Your task to perform on an android device: Show me recent news Image 0: 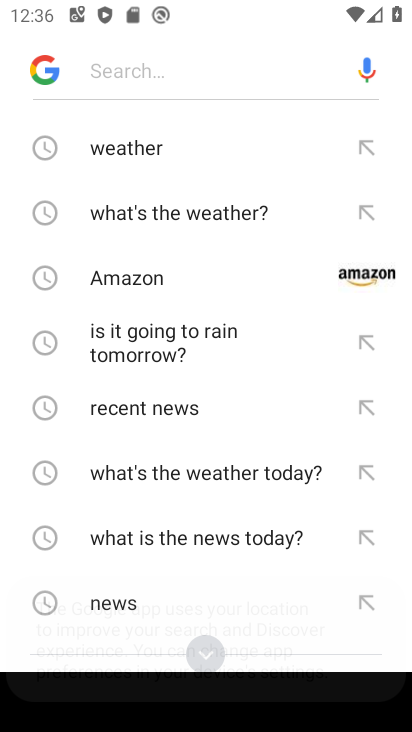
Step 0: press home button
Your task to perform on an android device: Show me recent news Image 1: 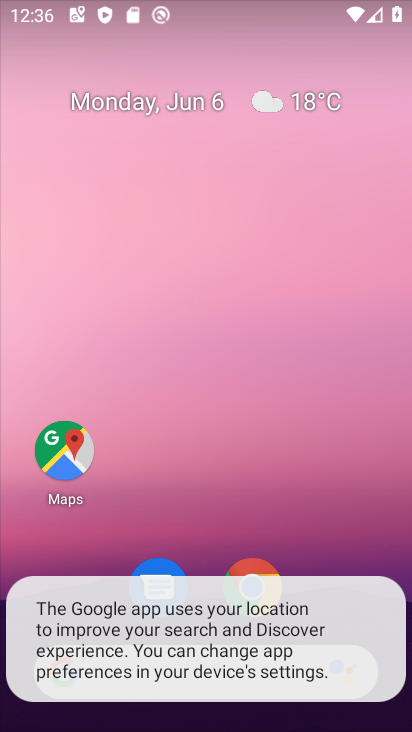
Step 1: drag from (335, 247) to (336, 121)
Your task to perform on an android device: Show me recent news Image 2: 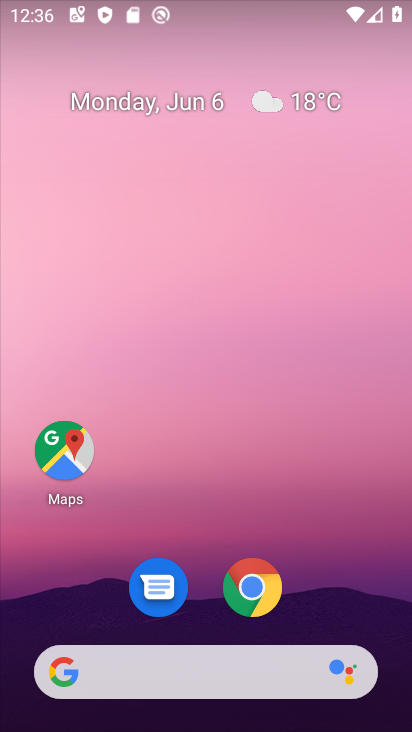
Step 2: click (271, 578)
Your task to perform on an android device: Show me recent news Image 3: 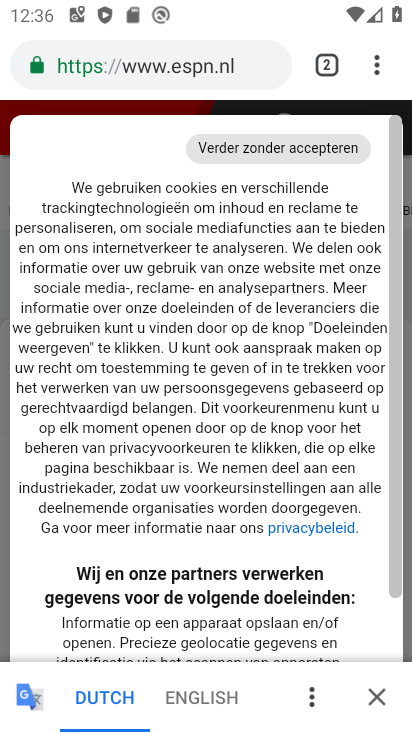
Step 3: drag from (172, 516) to (204, 351)
Your task to perform on an android device: Show me recent news Image 4: 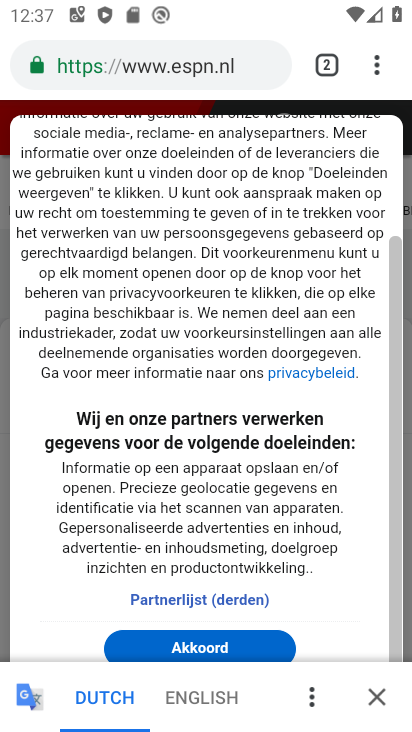
Step 4: click (205, 59)
Your task to perform on an android device: Show me recent news Image 5: 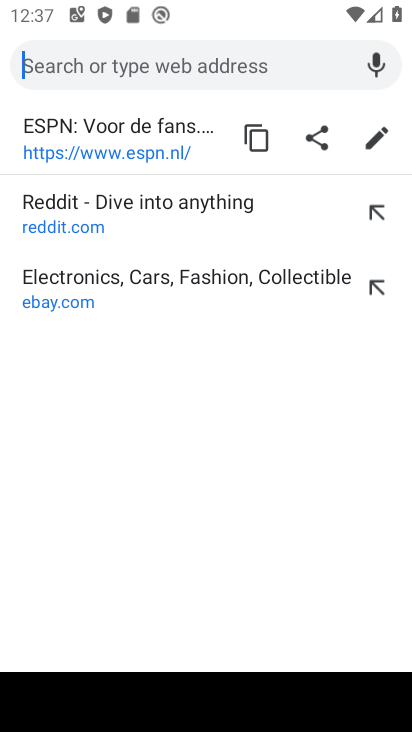
Step 5: type "recent news "
Your task to perform on an android device: Show me recent news Image 6: 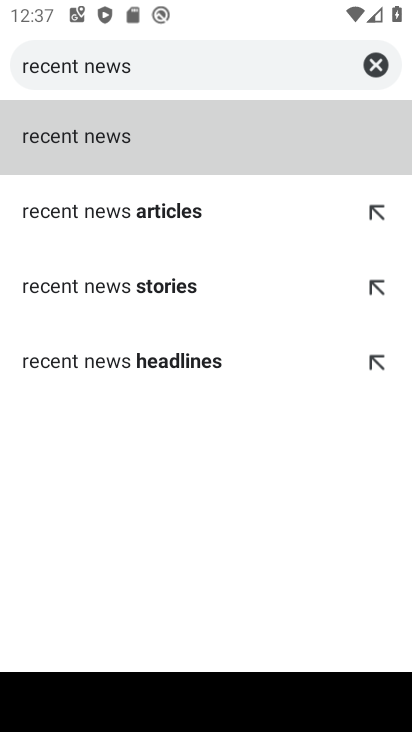
Step 6: click (181, 141)
Your task to perform on an android device: Show me recent news Image 7: 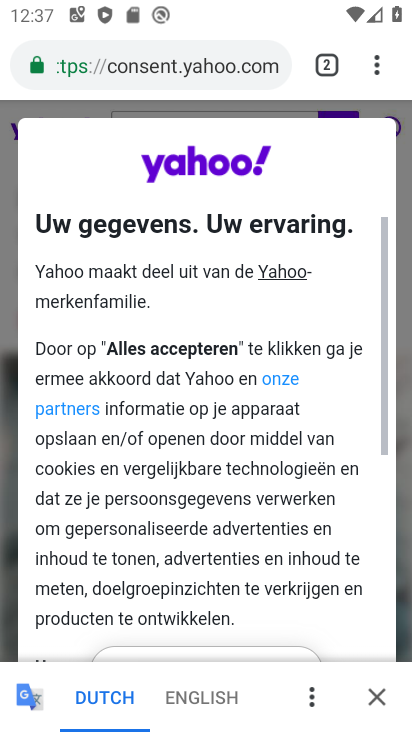
Step 7: task complete